Your task to perform on an android device: check storage Image 0: 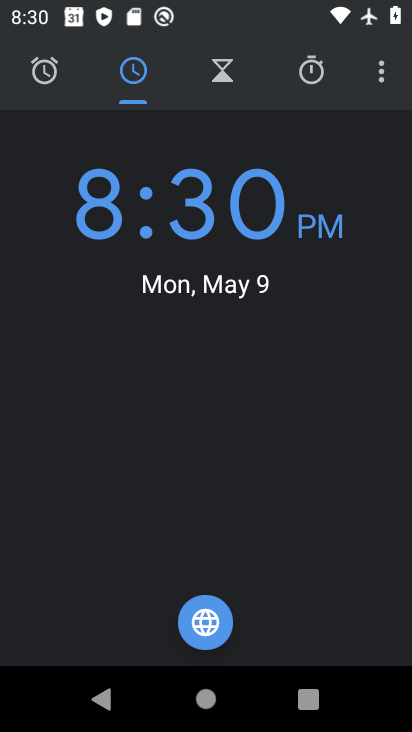
Step 0: click (77, 390)
Your task to perform on an android device: check storage Image 1: 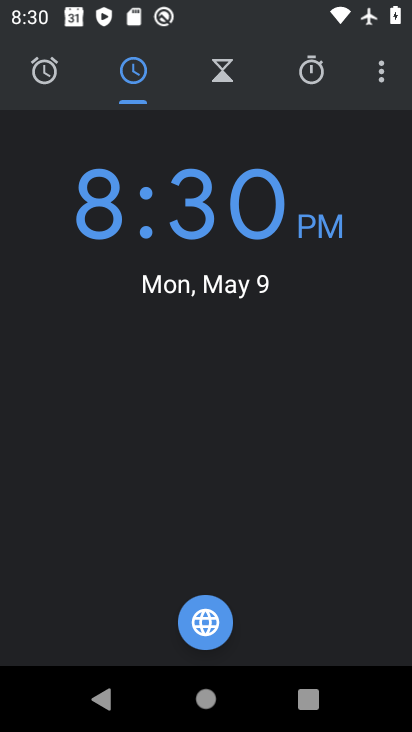
Step 1: press home button
Your task to perform on an android device: check storage Image 2: 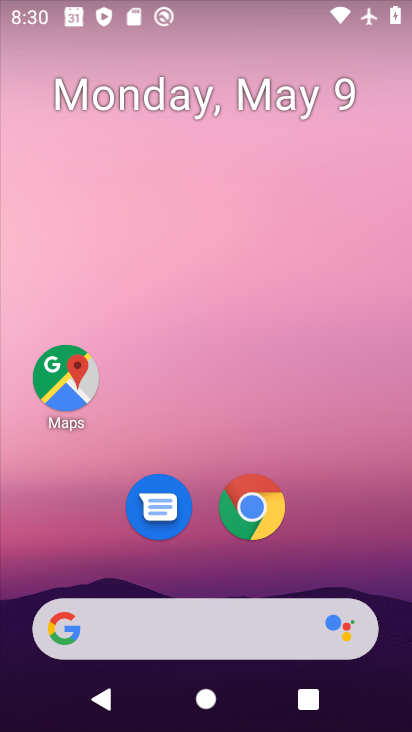
Step 2: drag from (232, 570) to (26, 154)
Your task to perform on an android device: check storage Image 3: 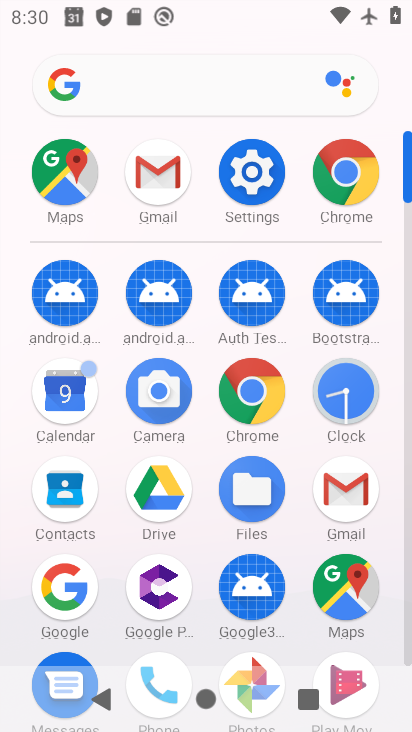
Step 3: click (254, 188)
Your task to perform on an android device: check storage Image 4: 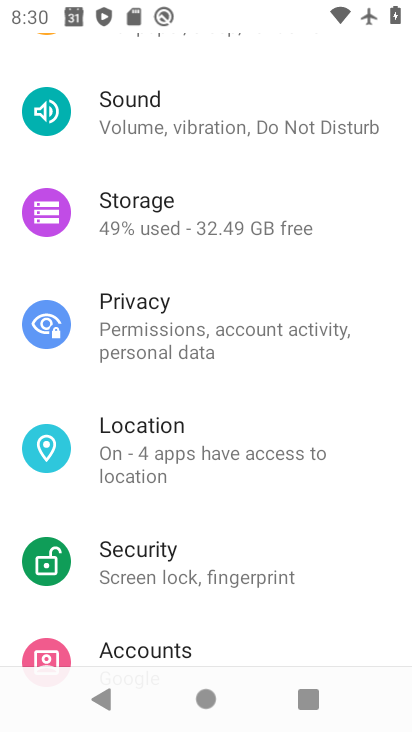
Step 4: click (153, 187)
Your task to perform on an android device: check storage Image 5: 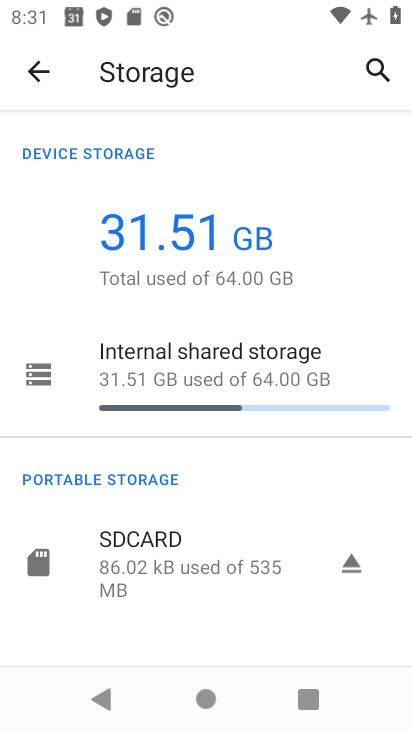
Step 5: click (217, 399)
Your task to perform on an android device: check storage Image 6: 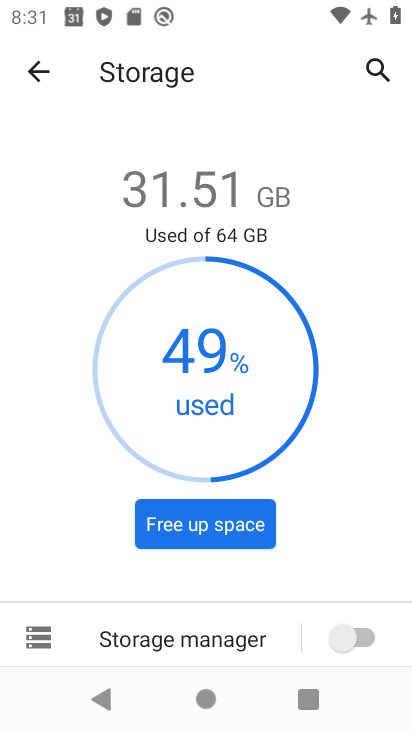
Step 6: task complete